Your task to perform on an android device: clear all cookies in the chrome app Image 0: 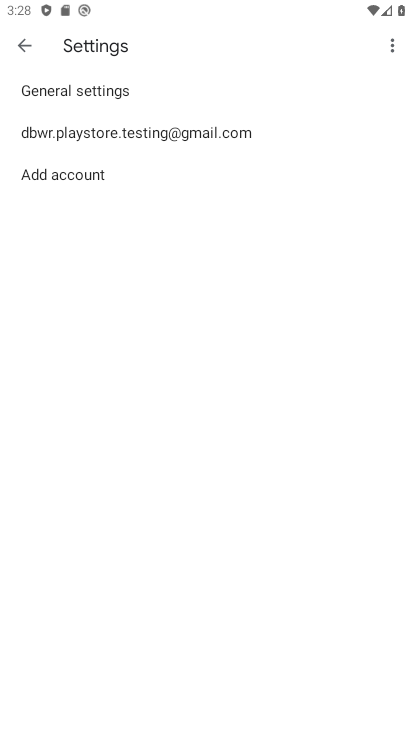
Step 0: press home button
Your task to perform on an android device: clear all cookies in the chrome app Image 1: 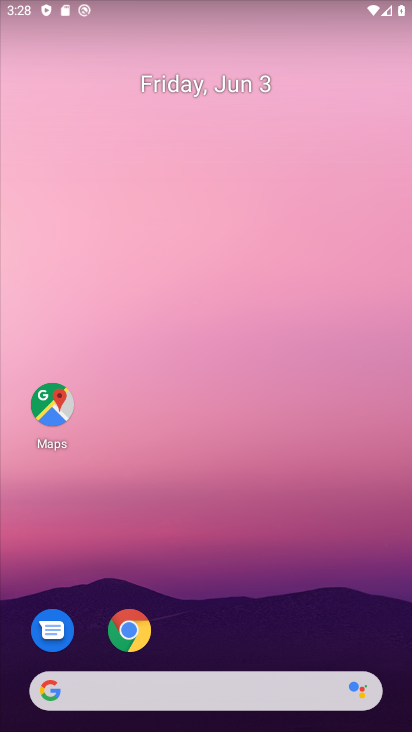
Step 1: click (133, 628)
Your task to perform on an android device: clear all cookies in the chrome app Image 2: 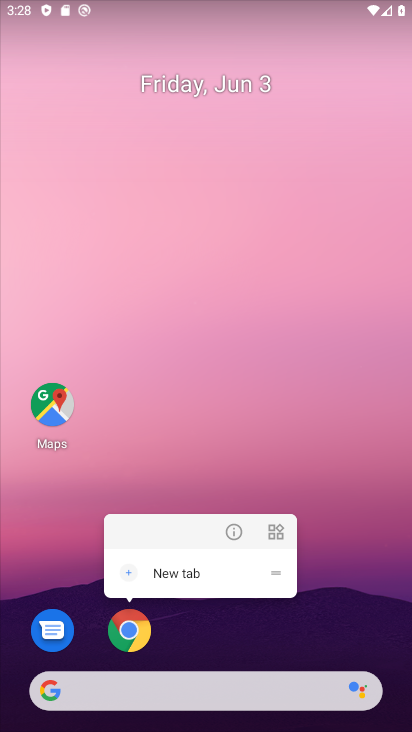
Step 2: click (126, 622)
Your task to perform on an android device: clear all cookies in the chrome app Image 3: 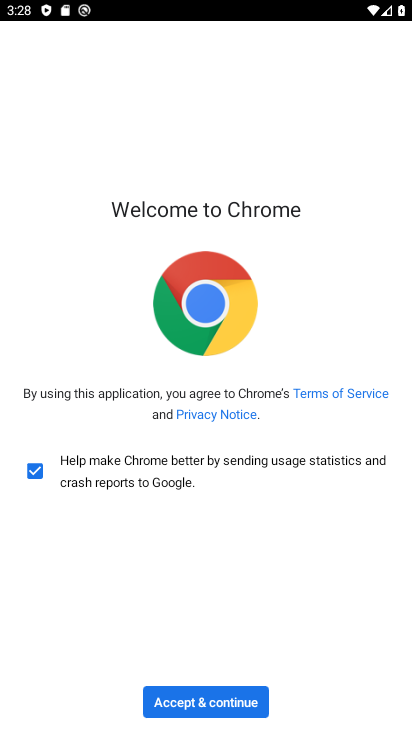
Step 3: click (240, 702)
Your task to perform on an android device: clear all cookies in the chrome app Image 4: 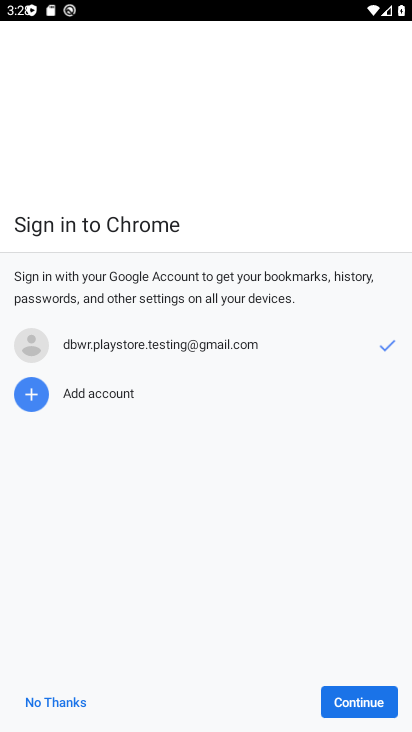
Step 4: click (351, 702)
Your task to perform on an android device: clear all cookies in the chrome app Image 5: 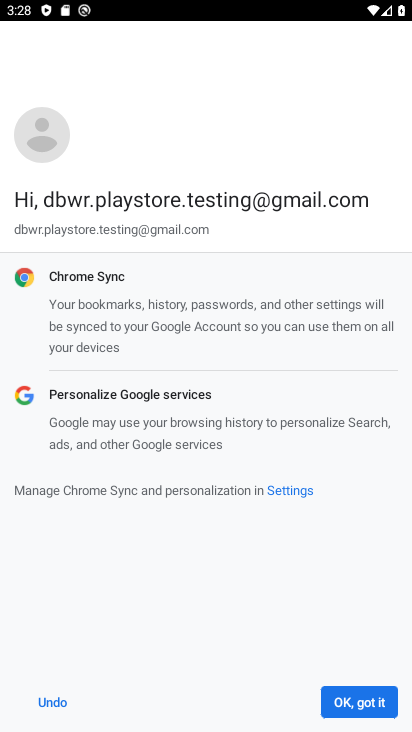
Step 5: click (351, 702)
Your task to perform on an android device: clear all cookies in the chrome app Image 6: 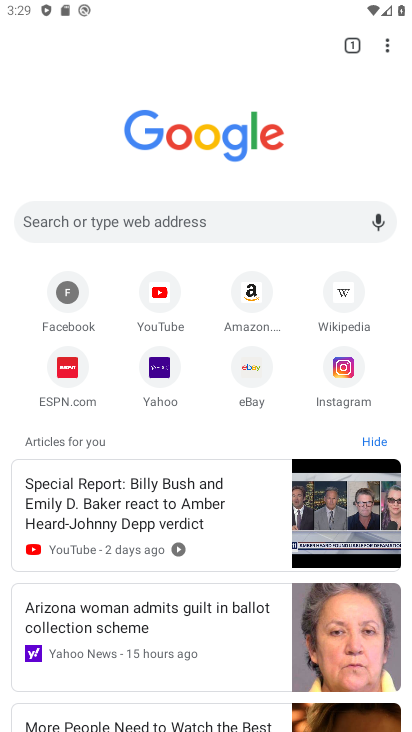
Step 6: drag from (385, 36) to (258, 380)
Your task to perform on an android device: clear all cookies in the chrome app Image 7: 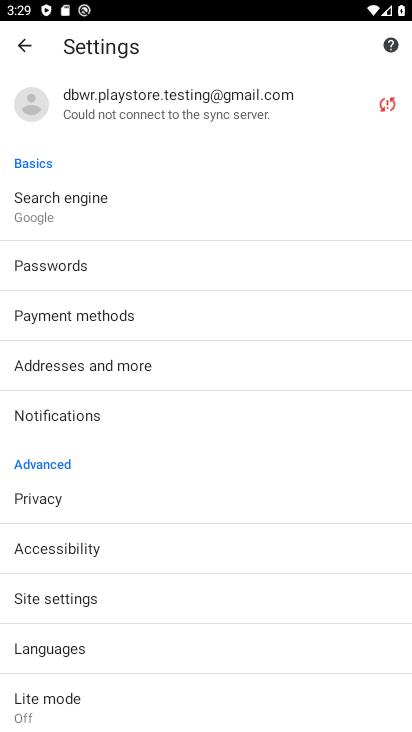
Step 7: click (38, 495)
Your task to perform on an android device: clear all cookies in the chrome app Image 8: 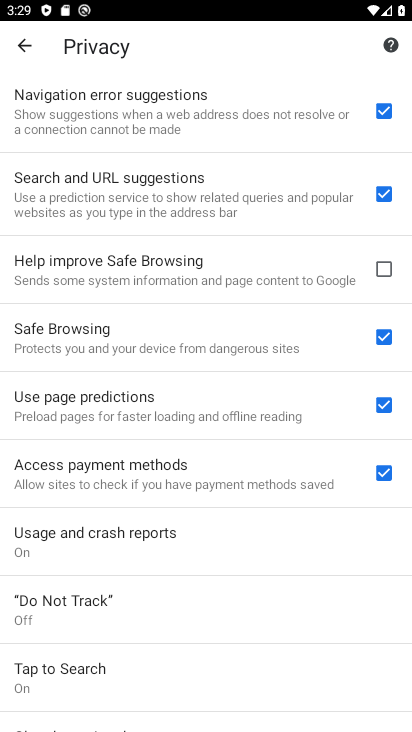
Step 8: drag from (224, 588) to (267, 184)
Your task to perform on an android device: clear all cookies in the chrome app Image 9: 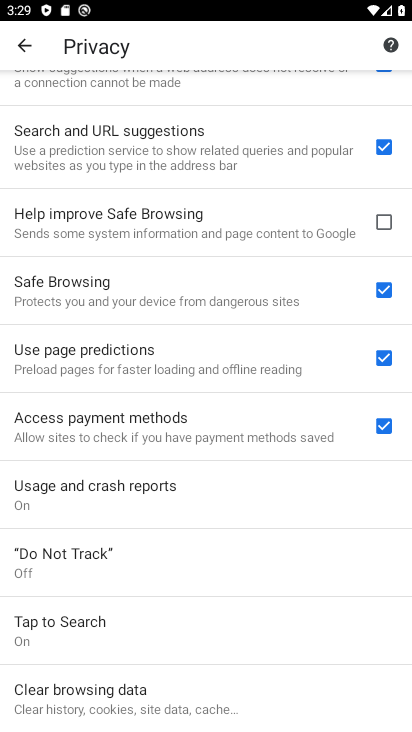
Step 9: click (100, 691)
Your task to perform on an android device: clear all cookies in the chrome app Image 10: 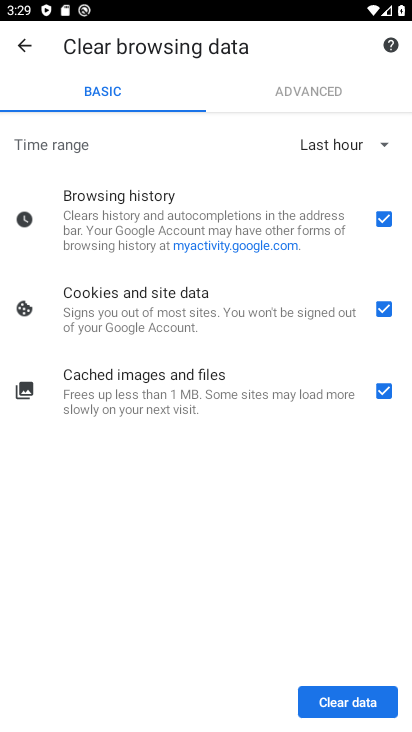
Step 10: click (362, 692)
Your task to perform on an android device: clear all cookies in the chrome app Image 11: 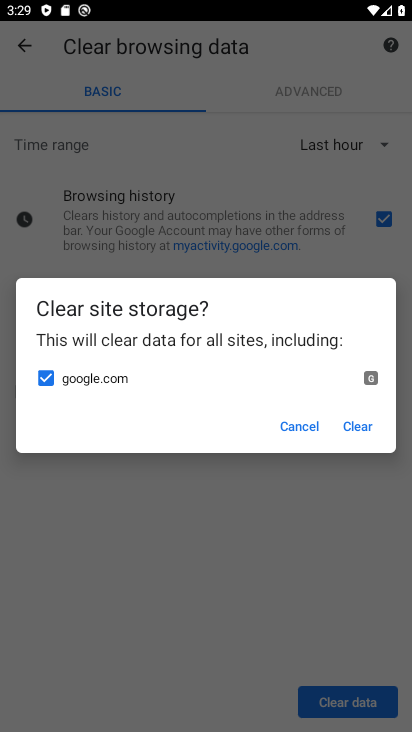
Step 11: click (352, 418)
Your task to perform on an android device: clear all cookies in the chrome app Image 12: 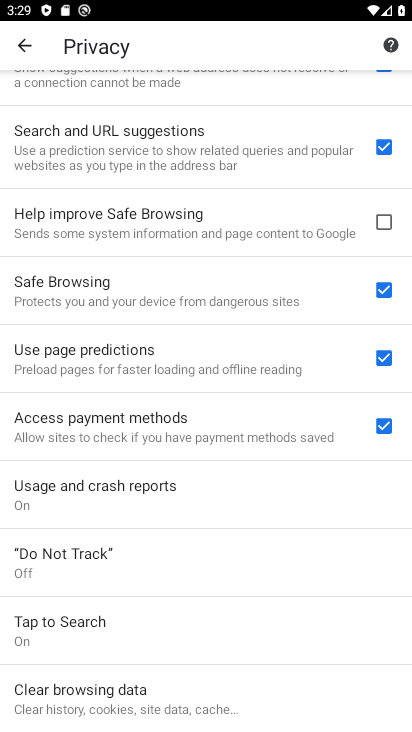
Step 12: task complete